Your task to perform on an android device: Show the shopping cart on walmart. Search for "asus zenbook" on walmart, select the first entry, and add it to the cart. Image 0: 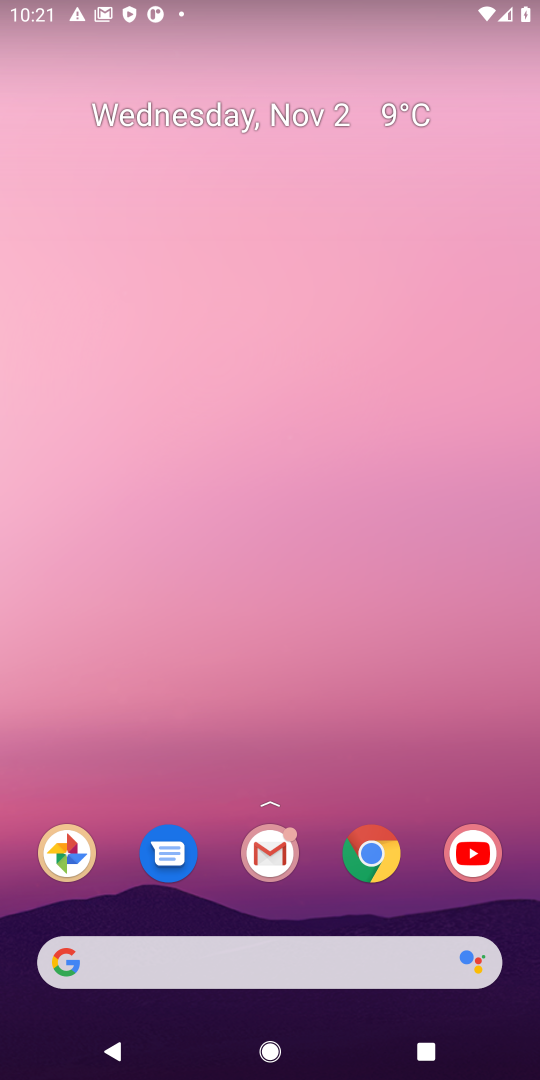
Step 0: click (380, 852)
Your task to perform on an android device: Show the shopping cart on walmart. Search for "asus zenbook" on walmart, select the first entry, and add it to the cart. Image 1: 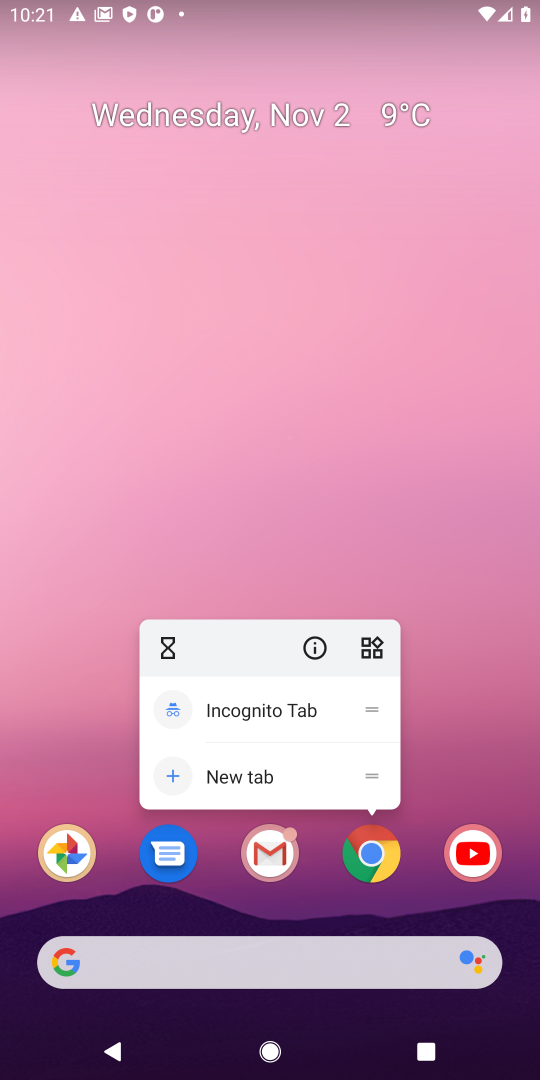
Step 1: click (381, 854)
Your task to perform on an android device: Show the shopping cart on walmart. Search for "asus zenbook" on walmart, select the first entry, and add it to the cart. Image 2: 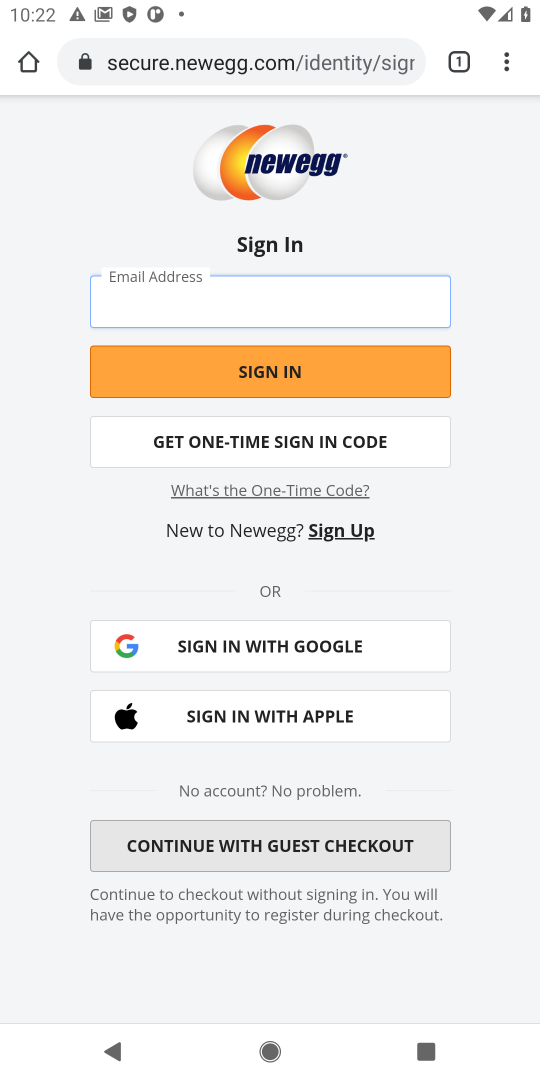
Step 2: click (282, 57)
Your task to perform on an android device: Show the shopping cart on walmart. Search for "asus zenbook" on walmart, select the first entry, and add it to the cart. Image 3: 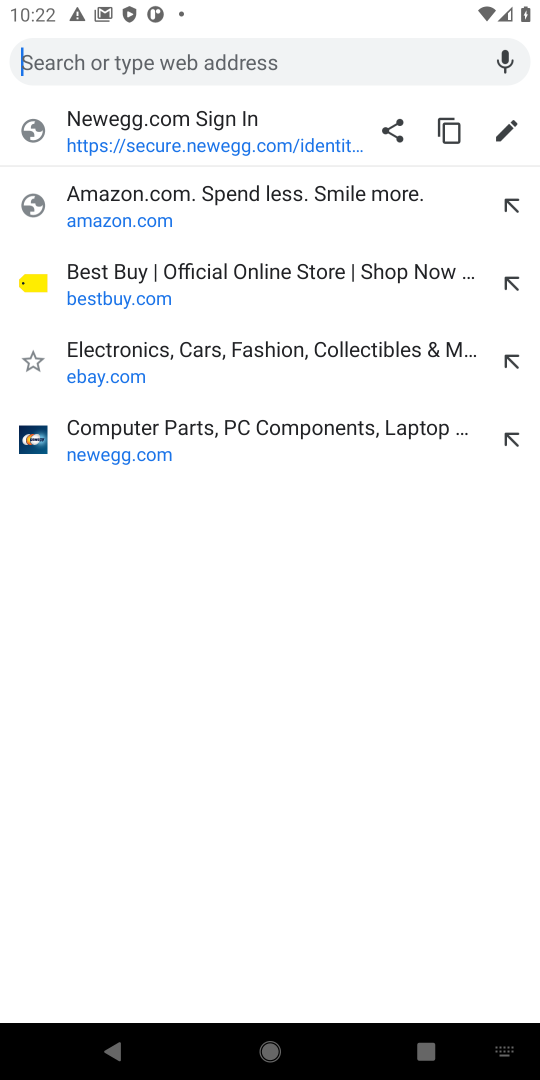
Step 3: type "walmart"
Your task to perform on an android device: Show the shopping cart on walmart. Search for "asus zenbook" on walmart, select the first entry, and add it to the cart. Image 4: 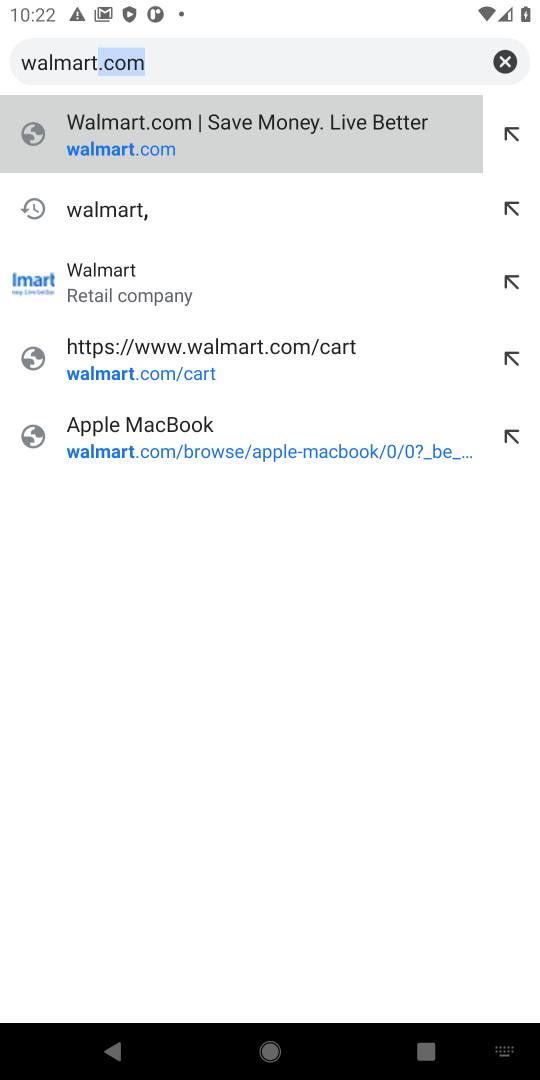
Step 4: press enter
Your task to perform on an android device: Show the shopping cart on walmart. Search for "asus zenbook" on walmart, select the first entry, and add it to the cart. Image 5: 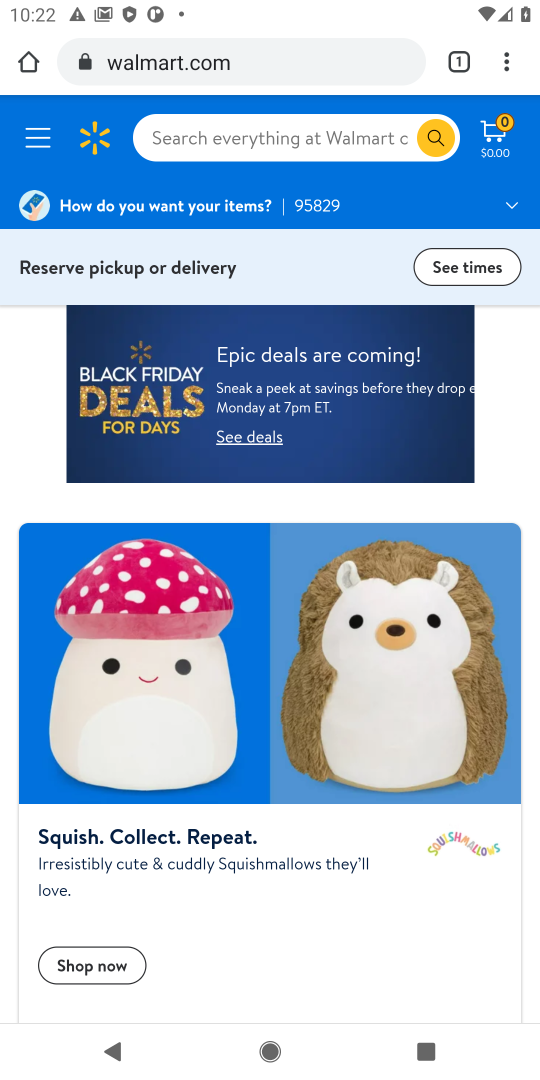
Step 5: click (265, 141)
Your task to perform on an android device: Show the shopping cart on walmart. Search for "asus zenbook" on walmart, select the first entry, and add it to the cart. Image 6: 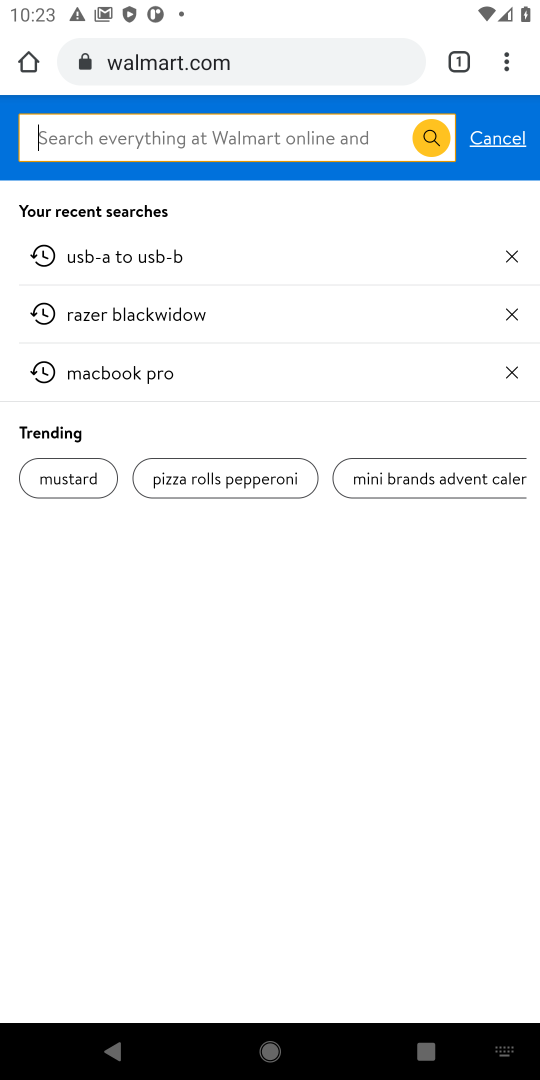
Step 6: type "asus zenbook"
Your task to perform on an android device: Show the shopping cart on walmart. Search for "asus zenbook" on walmart, select the first entry, and add it to the cart. Image 7: 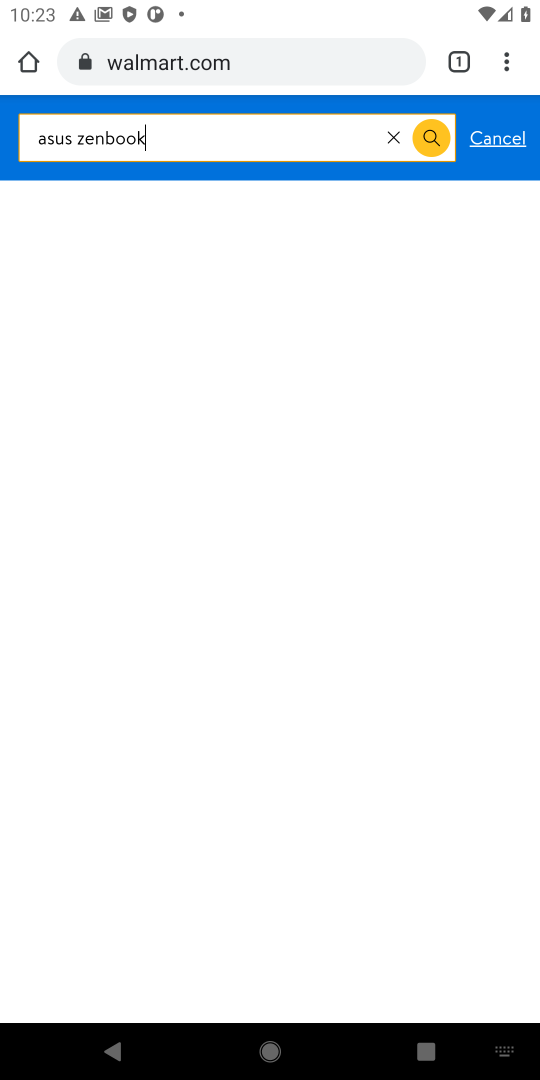
Step 7: press enter
Your task to perform on an android device: Show the shopping cart on walmart. Search for "asus zenbook" on walmart, select the first entry, and add it to the cart. Image 8: 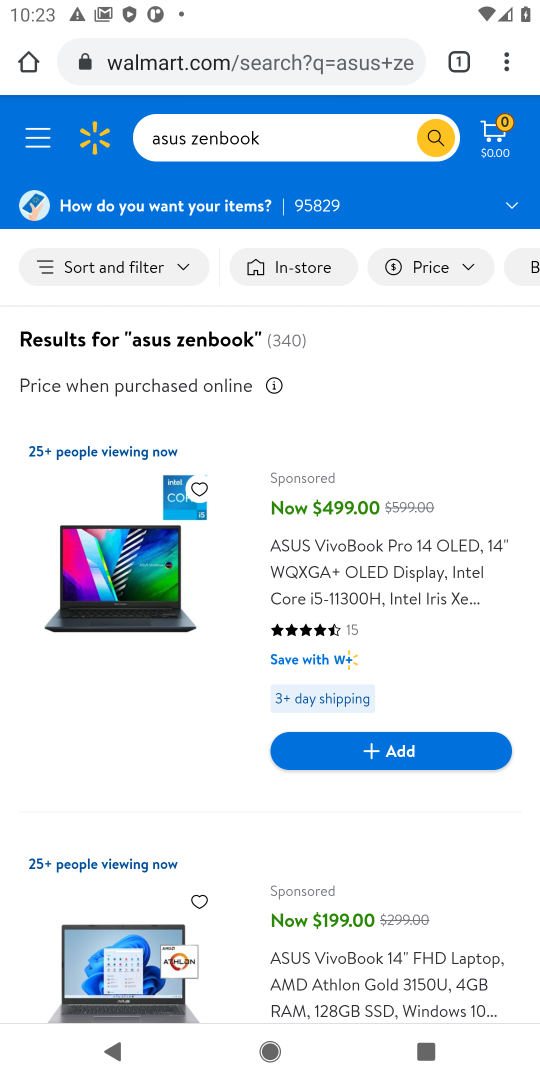
Step 8: click (409, 574)
Your task to perform on an android device: Show the shopping cart on walmart. Search for "asus zenbook" on walmart, select the first entry, and add it to the cart. Image 9: 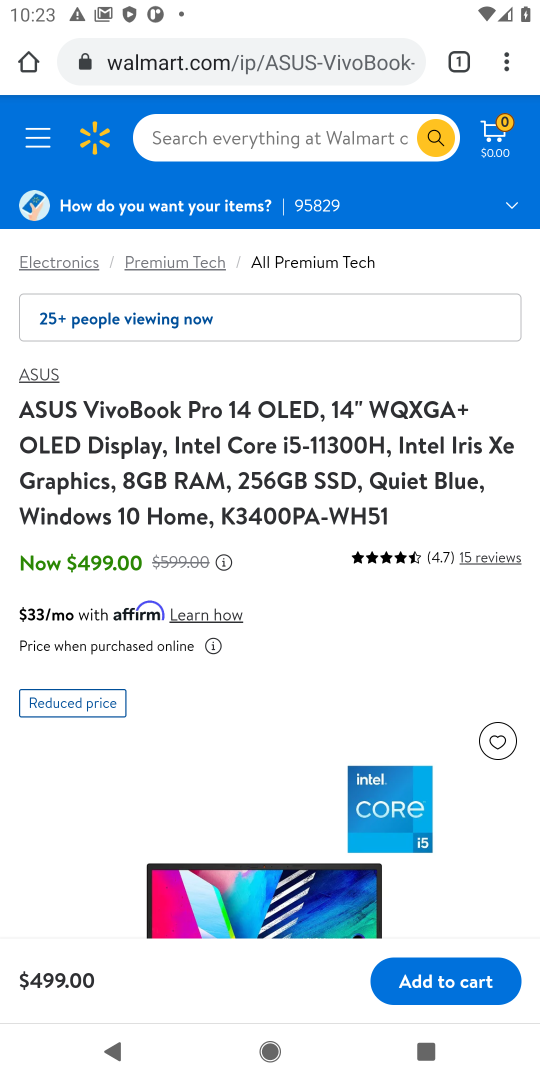
Step 9: task complete